Your task to perform on an android device: change notification settings in the gmail app Image 0: 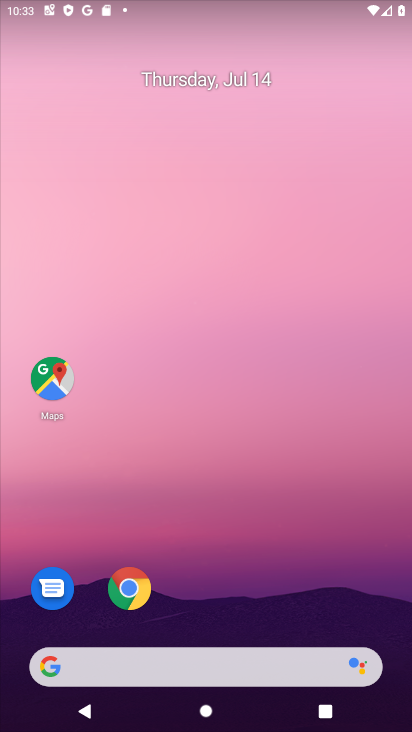
Step 0: press home button
Your task to perform on an android device: change notification settings in the gmail app Image 1: 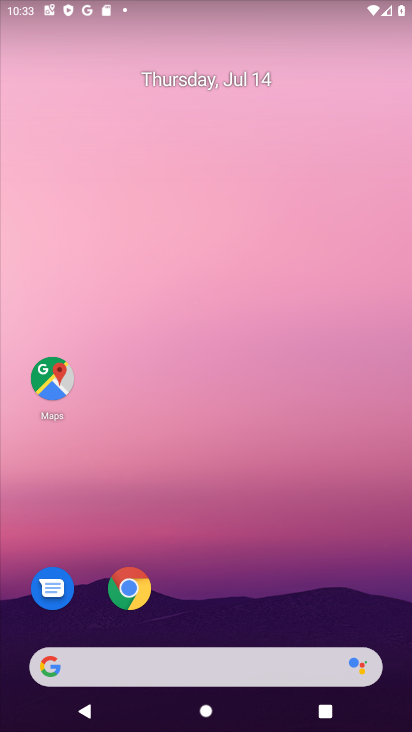
Step 1: drag from (180, 680) to (346, 133)
Your task to perform on an android device: change notification settings in the gmail app Image 2: 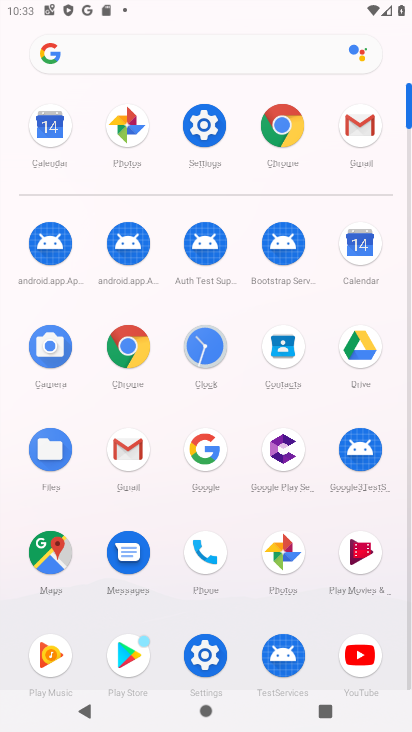
Step 2: click (350, 122)
Your task to perform on an android device: change notification settings in the gmail app Image 3: 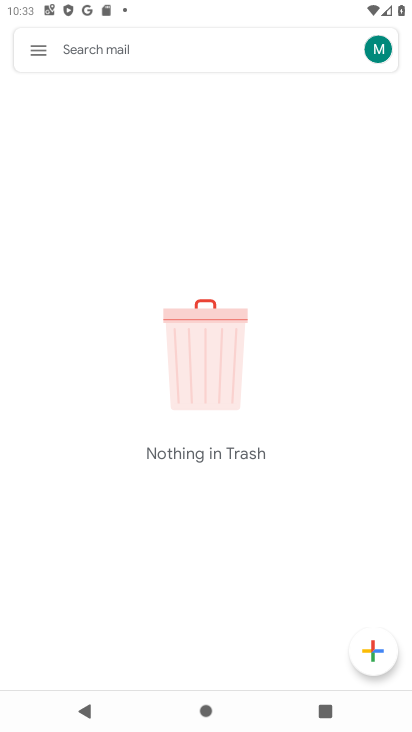
Step 3: click (38, 54)
Your task to perform on an android device: change notification settings in the gmail app Image 4: 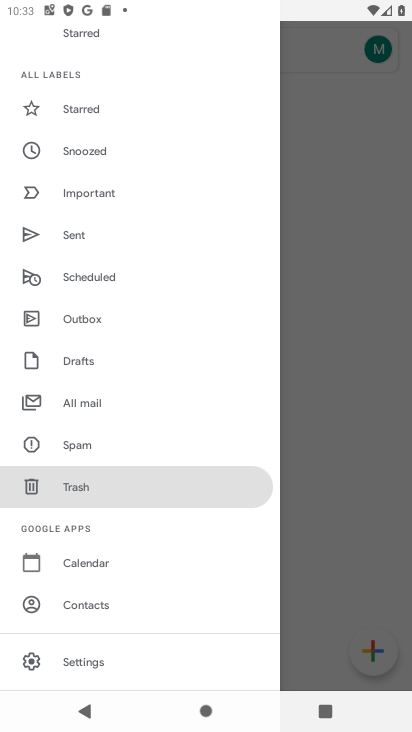
Step 4: click (90, 661)
Your task to perform on an android device: change notification settings in the gmail app Image 5: 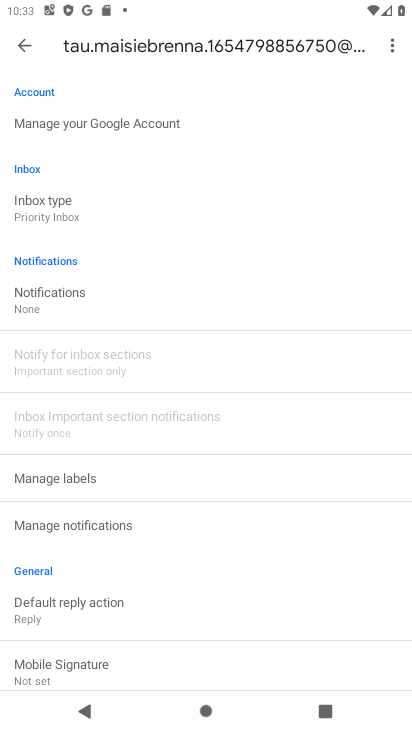
Step 5: click (61, 299)
Your task to perform on an android device: change notification settings in the gmail app Image 6: 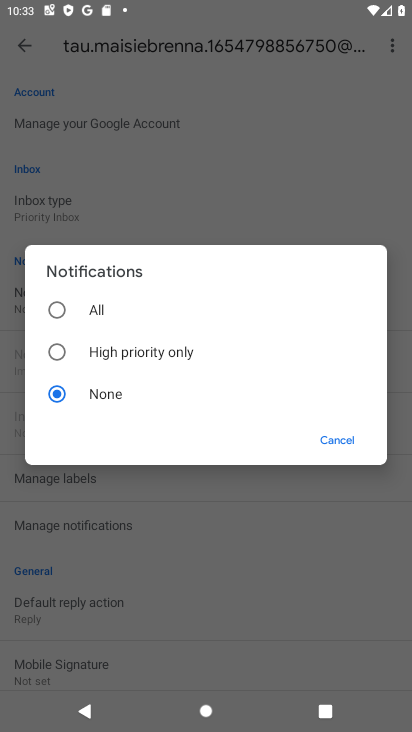
Step 6: click (55, 303)
Your task to perform on an android device: change notification settings in the gmail app Image 7: 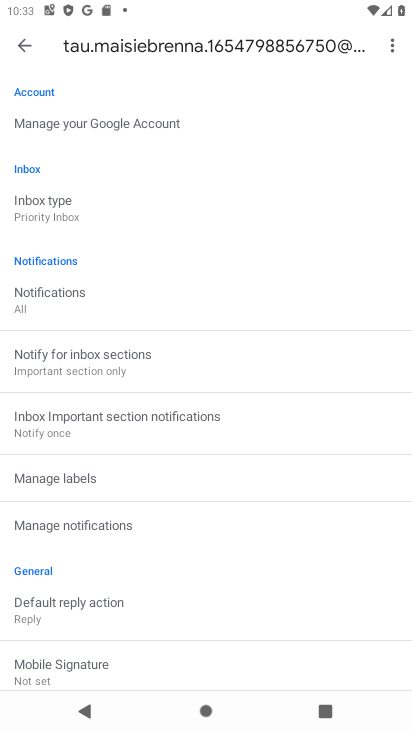
Step 7: task complete